Your task to perform on an android device: Open settings on Google Maps Image 0: 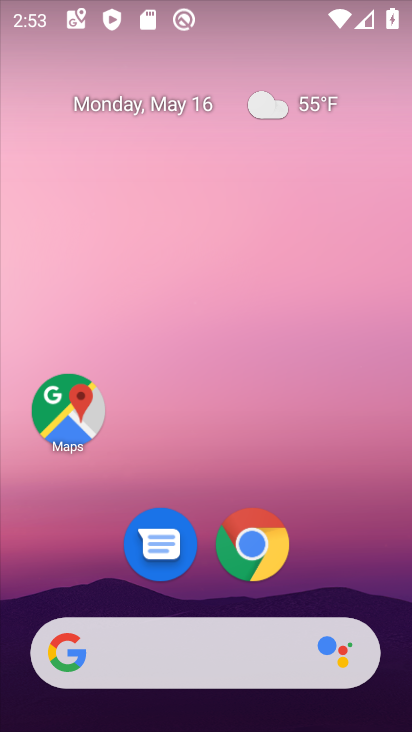
Step 0: drag from (344, 517) to (292, 171)
Your task to perform on an android device: Open settings on Google Maps Image 1: 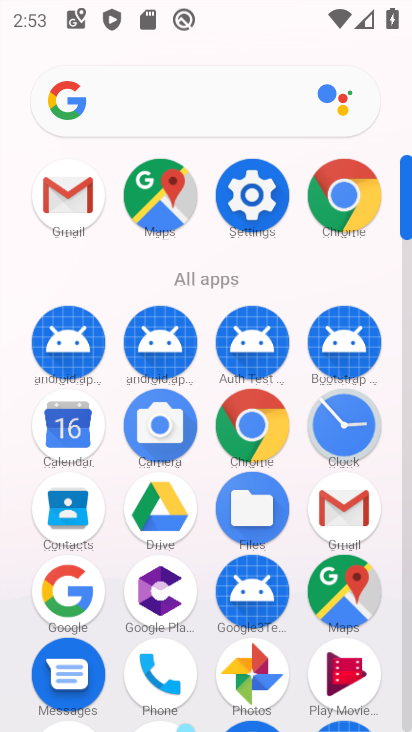
Step 1: click (171, 199)
Your task to perform on an android device: Open settings on Google Maps Image 2: 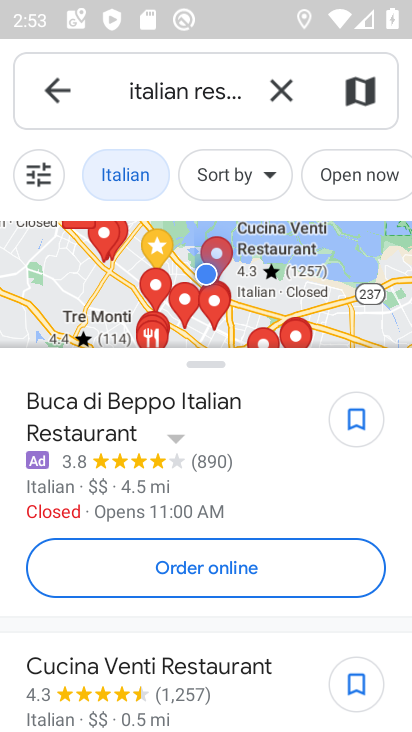
Step 2: task complete